Your task to perform on an android device: change the clock display to analog Image 0: 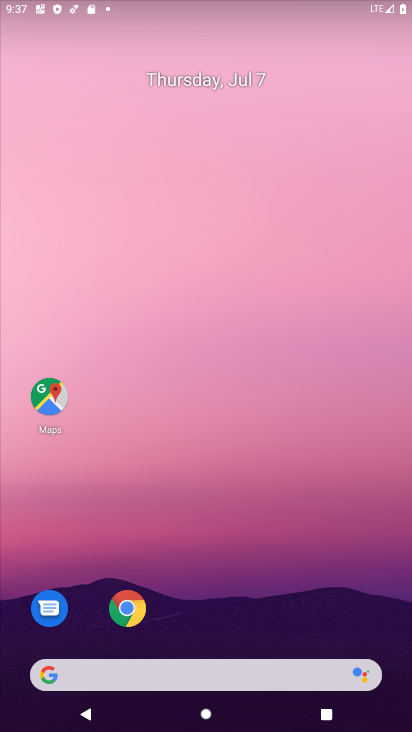
Step 0: drag from (193, 595) to (230, 79)
Your task to perform on an android device: change the clock display to analog Image 1: 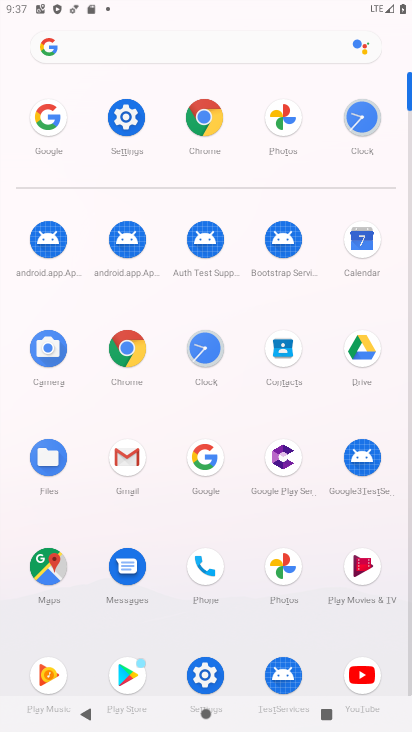
Step 1: click (206, 339)
Your task to perform on an android device: change the clock display to analog Image 2: 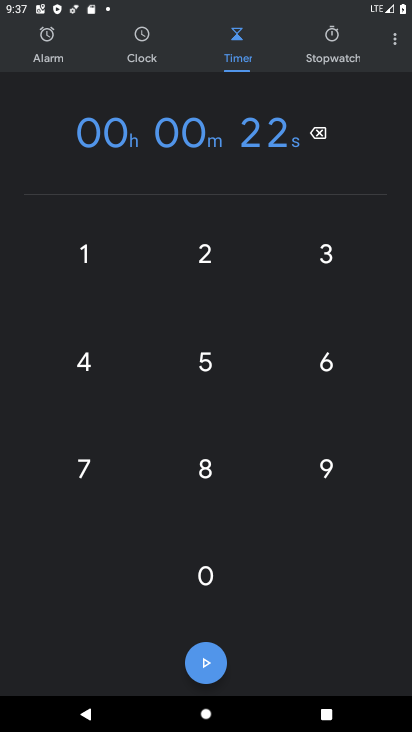
Step 2: click (391, 42)
Your task to perform on an android device: change the clock display to analog Image 3: 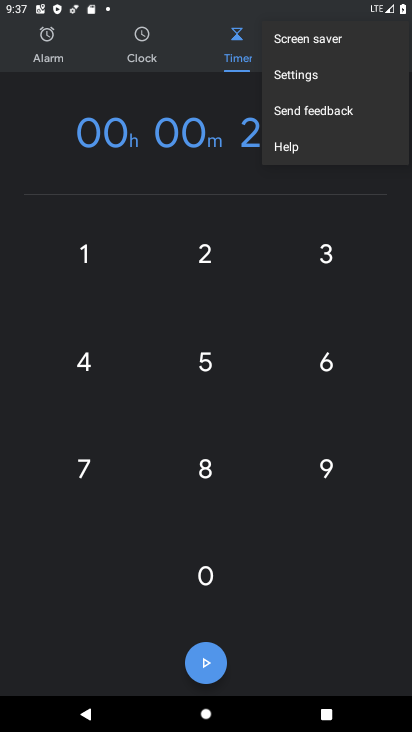
Step 3: click (316, 75)
Your task to perform on an android device: change the clock display to analog Image 4: 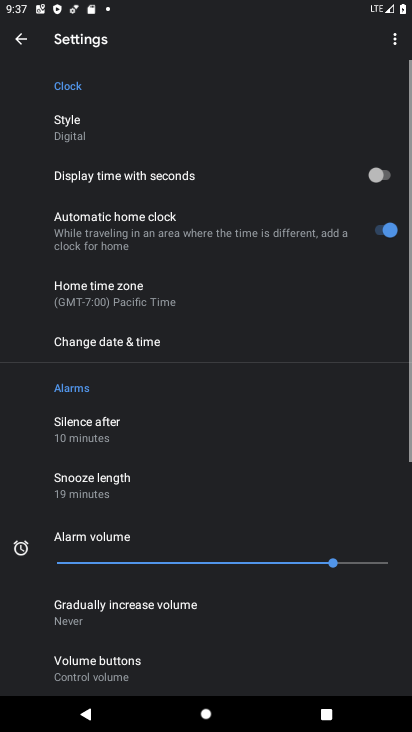
Step 4: click (105, 117)
Your task to perform on an android device: change the clock display to analog Image 5: 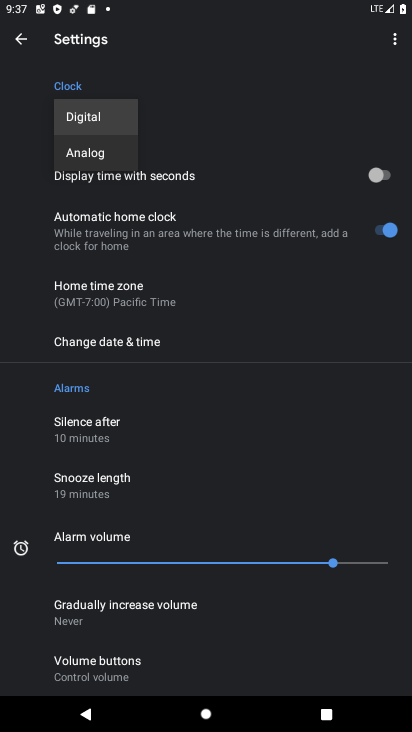
Step 5: click (88, 150)
Your task to perform on an android device: change the clock display to analog Image 6: 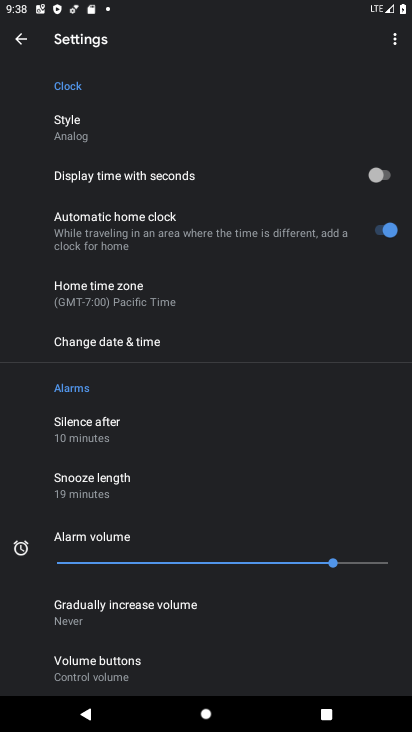
Step 6: task complete